Your task to perform on an android device: Show me productivity apps on the Play Store Image 0: 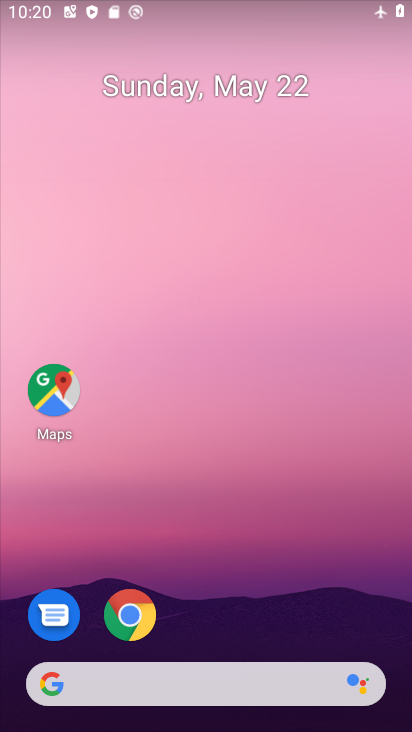
Step 0: drag from (257, 583) to (278, 136)
Your task to perform on an android device: Show me productivity apps on the Play Store Image 1: 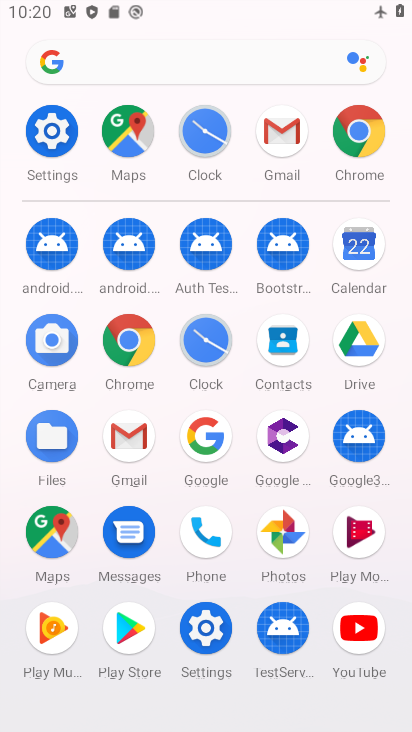
Step 1: drag from (286, 631) to (330, 350)
Your task to perform on an android device: Show me productivity apps on the Play Store Image 2: 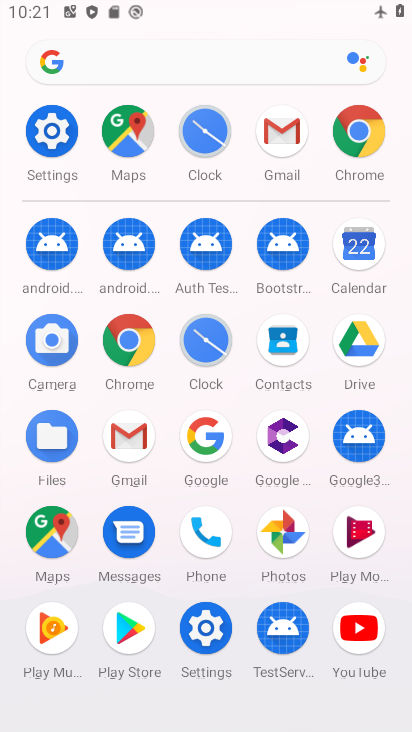
Step 2: click (129, 617)
Your task to perform on an android device: Show me productivity apps on the Play Store Image 3: 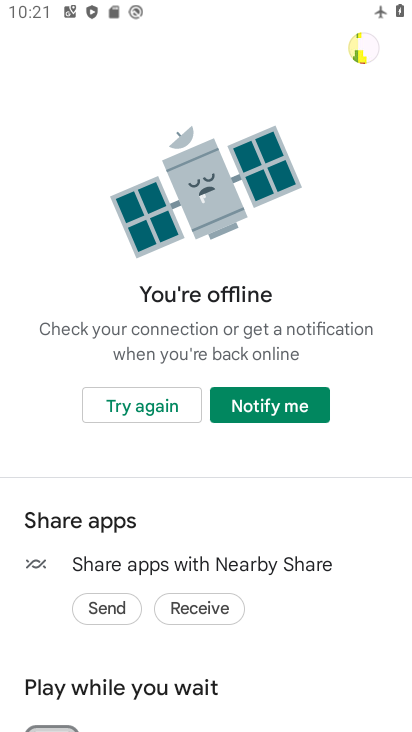
Step 3: task complete